Your task to perform on an android device: open a bookmark in the chrome app Image 0: 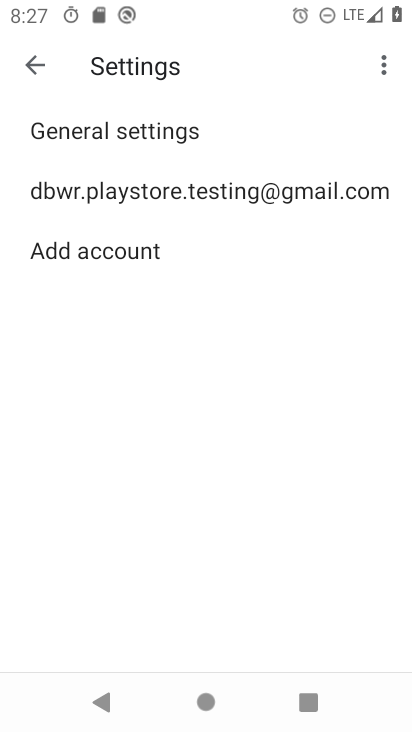
Step 0: press home button
Your task to perform on an android device: open a bookmark in the chrome app Image 1: 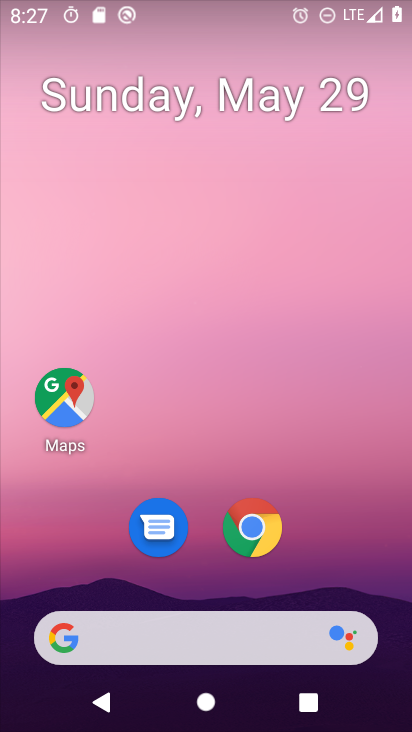
Step 1: drag from (398, 644) to (333, 87)
Your task to perform on an android device: open a bookmark in the chrome app Image 2: 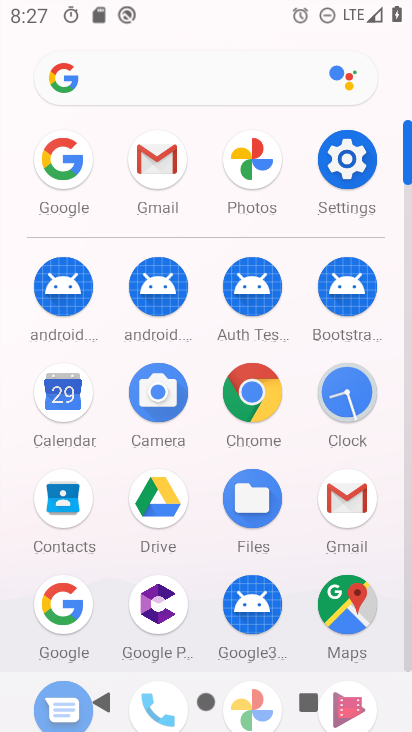
Step 2: click (246, 397)
Your task to perform on an android device: open a bookmark in the chrome app Image 3: 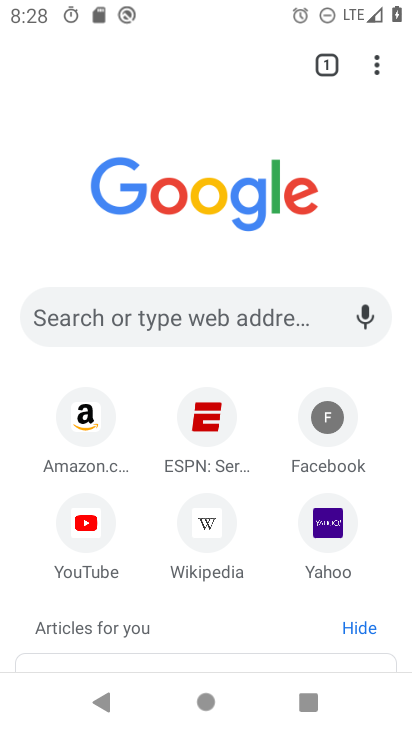
Step 3: click (382, 49)
Your task to perform on an android device: open a bookmark in the chrome app Image 4: 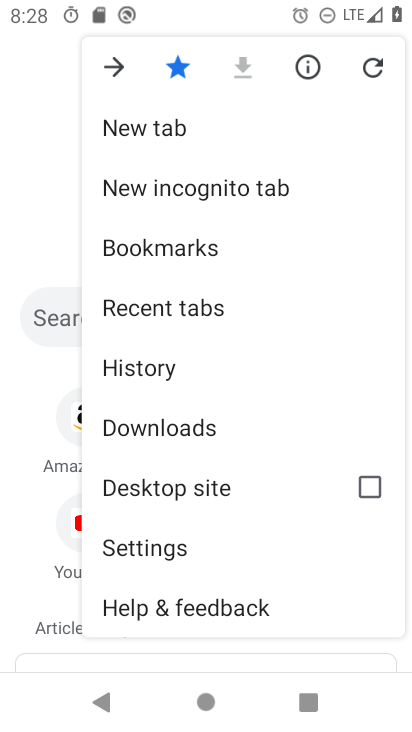
Step 4: click (250, 246)
Your task to perform on an android device: open a bookmark in the chrome app Image 5: 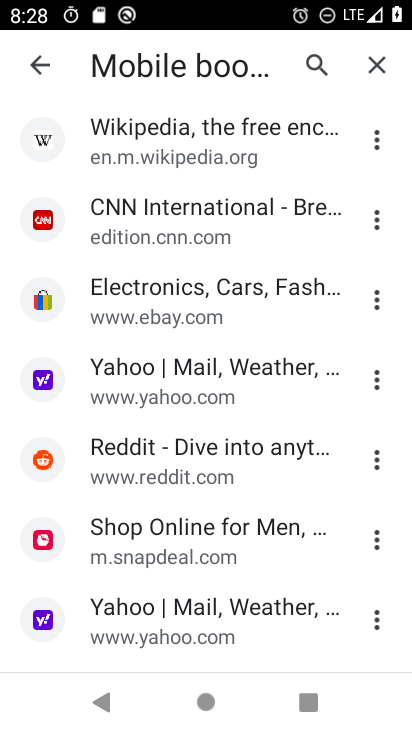
Step 5: task complete